Your task to perform on an android device: change timer sound Image 0: 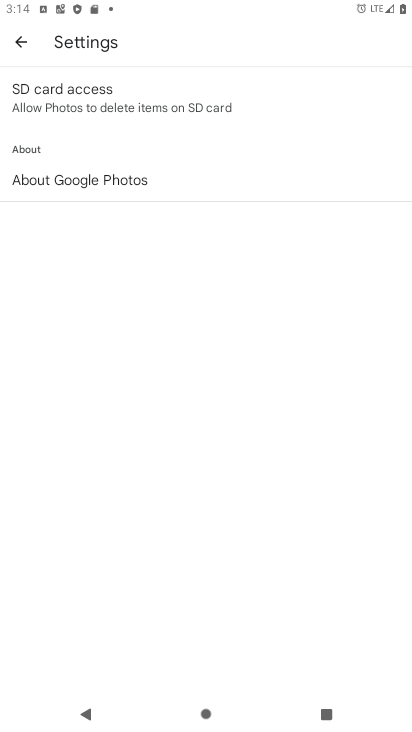
Step 0: press home button
Your task to perform on an android device: change timer sound Image 1: 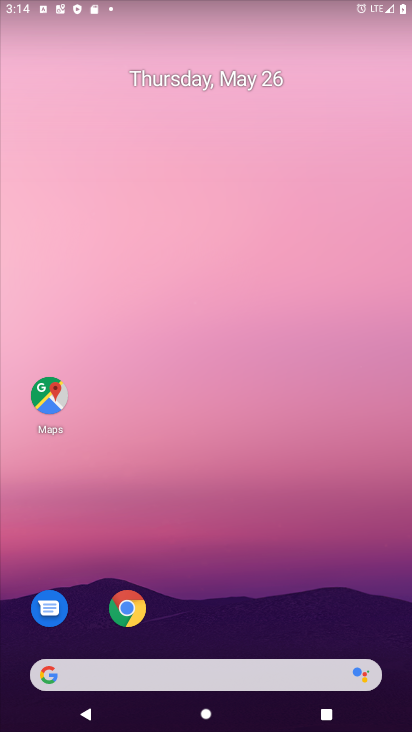
Step 1: drag from (334, 612) to (288, 114)
Your task to perform on an android device: change timer sound Image 2: 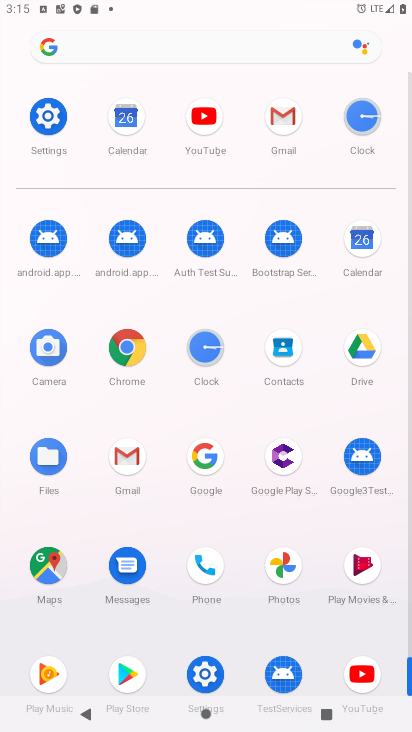
Step 2: click (202, 345)
Your task to perform on an android device: change timer sound Image 3: 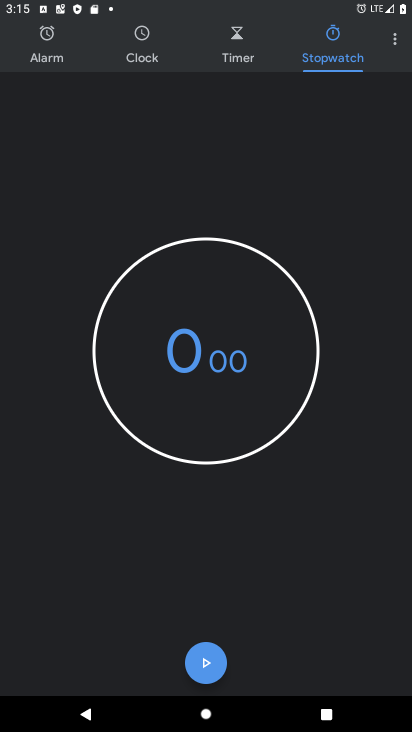
Step 3: click (392, 43)
Your task to perform on an android device: change timer sound Image 4: 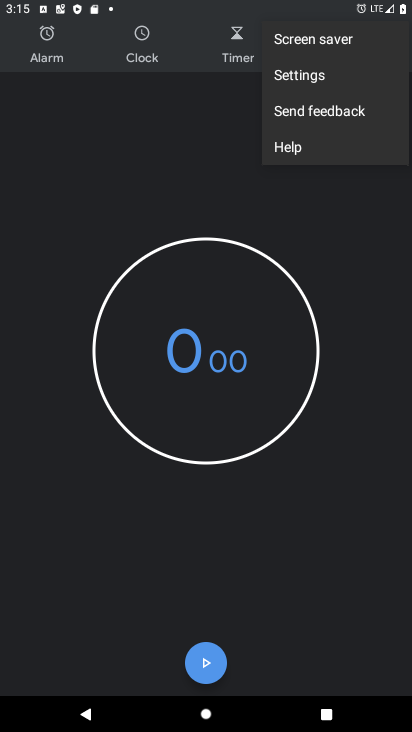
Step 4: click (296, 78)
Your task to perform on an android device: change timer sound Image 5: 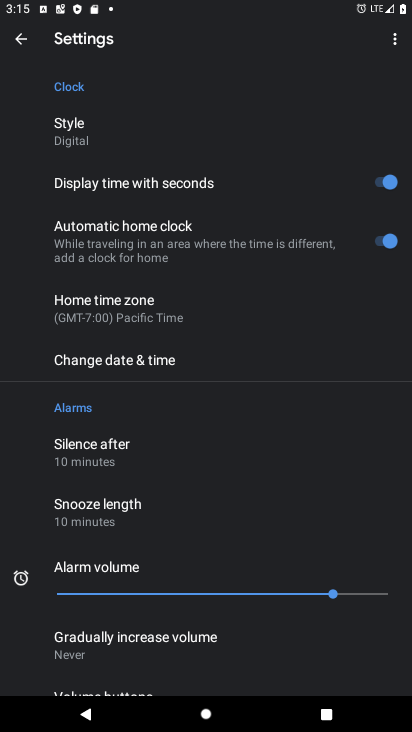
Step 5: drag from (227, 565) to (221, 163)
Your task to perform on an android device: change timer sound Image 6: 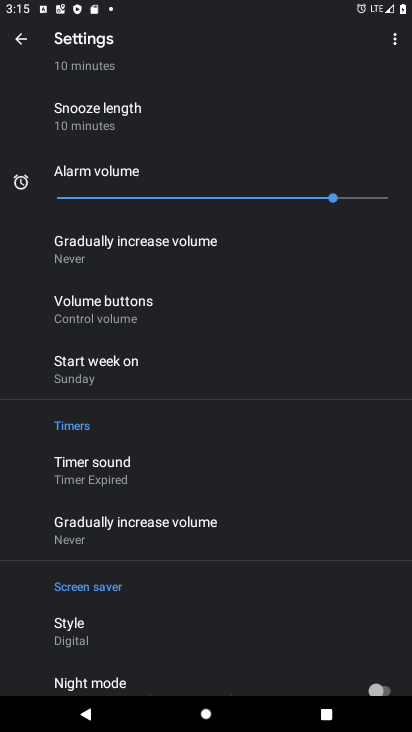
Step 6: click (123, 473)
Your task to perform on an android device: change timer sound Image 7: 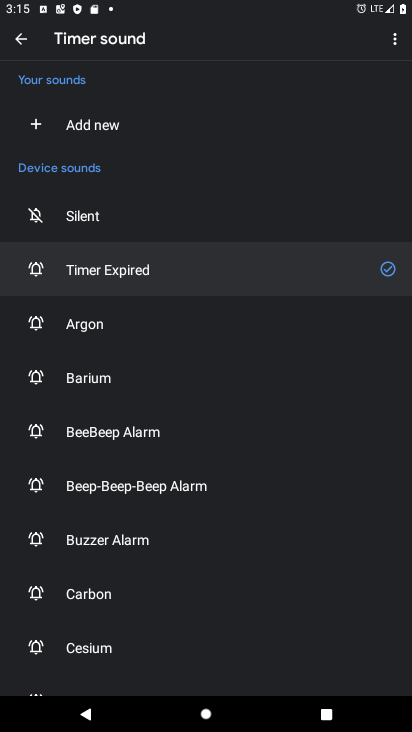
Step 7: click (119, 548)
Your task to perform on an android device: change timer sound Image 8: 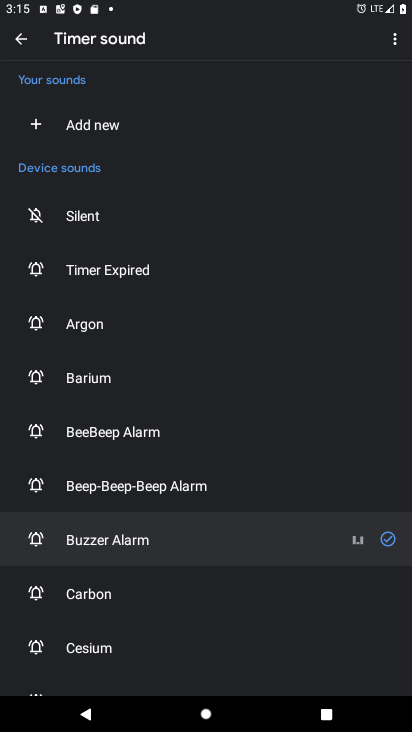
Step 8: task complete